Your task to perform on an android device: Do I have any events today? Image 0: 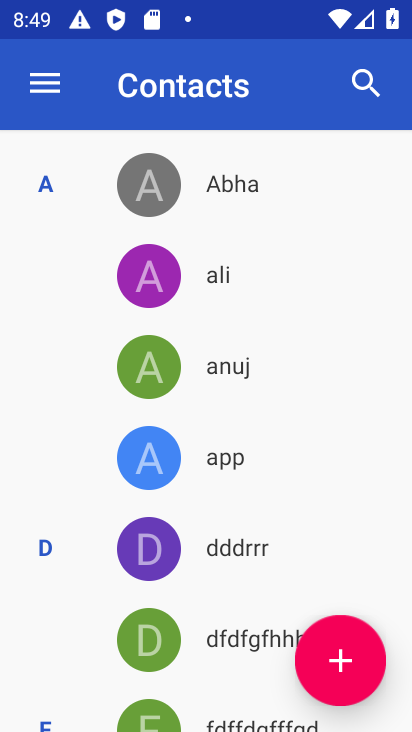
Step 0: drag from (225, 675) to (206, 334)
Your task to perform on an android device: Do I have any events today? Image 1: 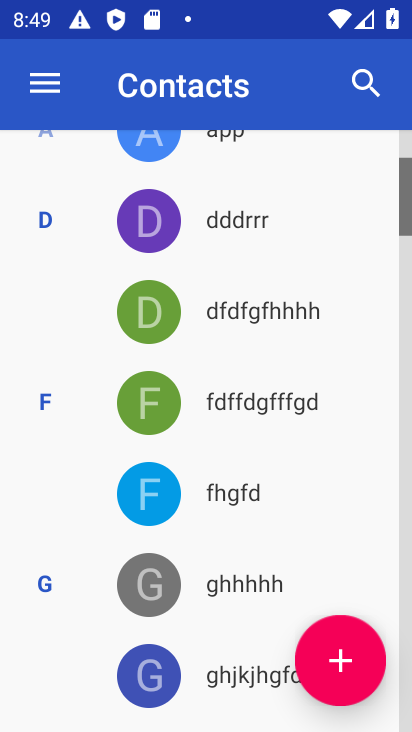
Step 1: press home button
Your task to perform on an android device: Do I have any events today? Image 2: 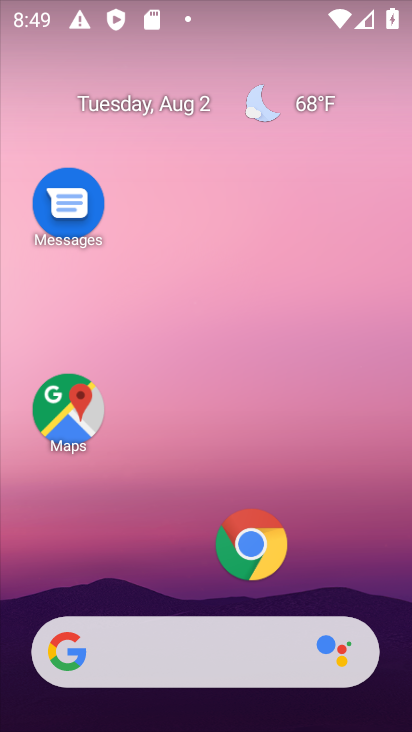
Step 2: drag from (221, 624) to (149, 138)
Your task to perform on an android device: Do I have any events today? Image 3: 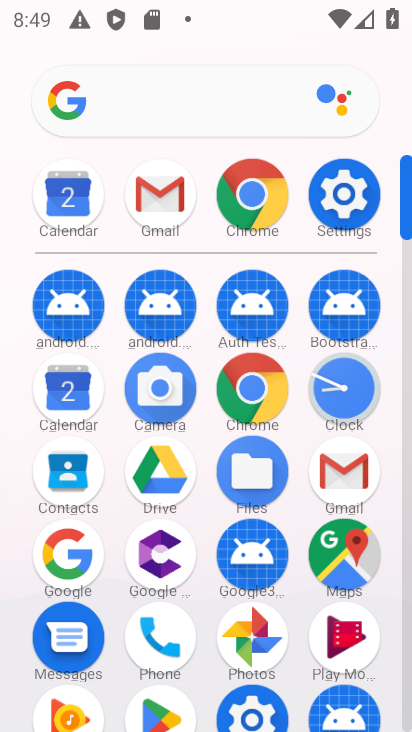
Step 3: drag from (190, 683) to (193, 339)
Your task to perform on an android device: Do I have any events today? Image 4: 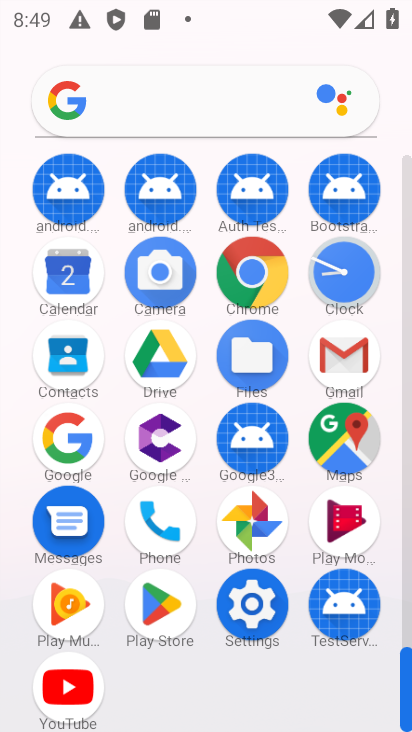
Step 4: drag from (182, 249) to (230, 610)
Your task to perform on an android device: Do I have any events today? Image 5: 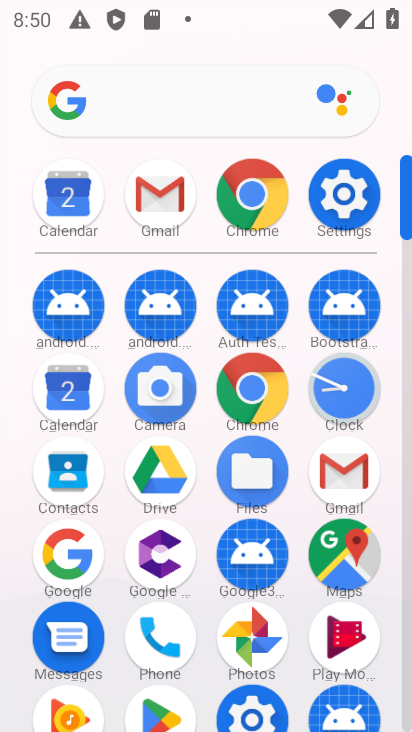
Step 5: click (64, 191)
Your task to perform on an android device: Do I have any events today? Image 6: 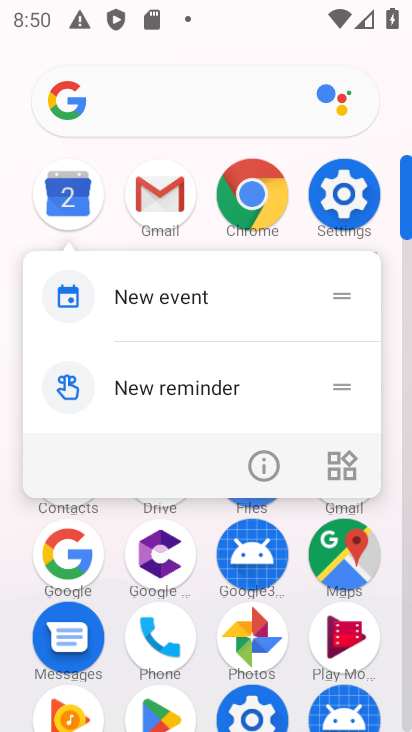
Step 6: click (90, 200)
Your task to perform on an android device: Do I have any events today? Image 7: 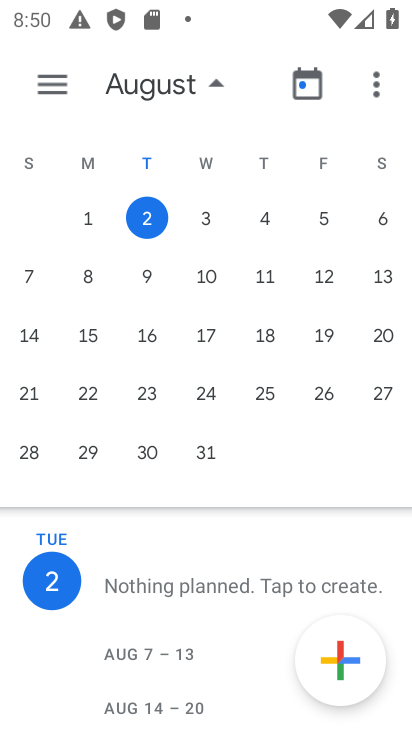
Step 7: click (150, 222)
Your task to perform on an android device: Do I have any events today? Image 8: 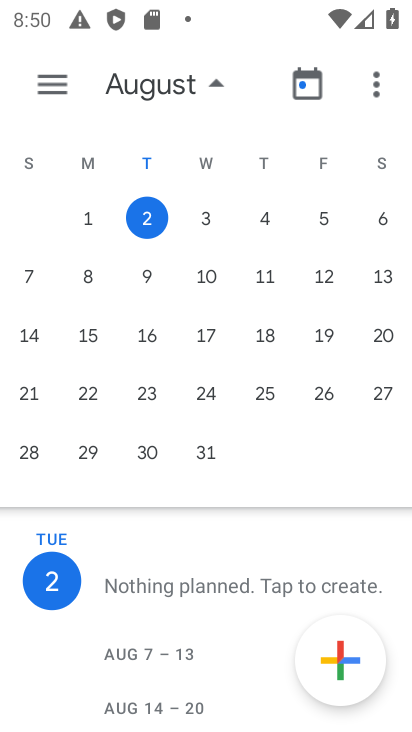
Step 8: task complete